Your task to perform on an android device: change the clock display to digital Image 0: 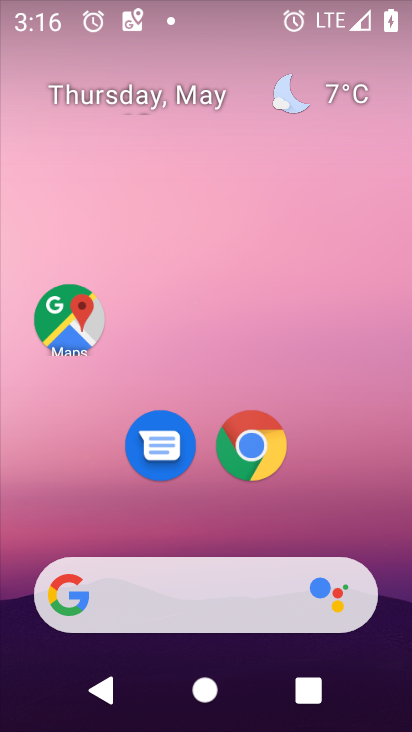
Step 0: drag from (361, 529) to (358, 2)
Your task to perform on an android device: change the clock display to digital Image 1: 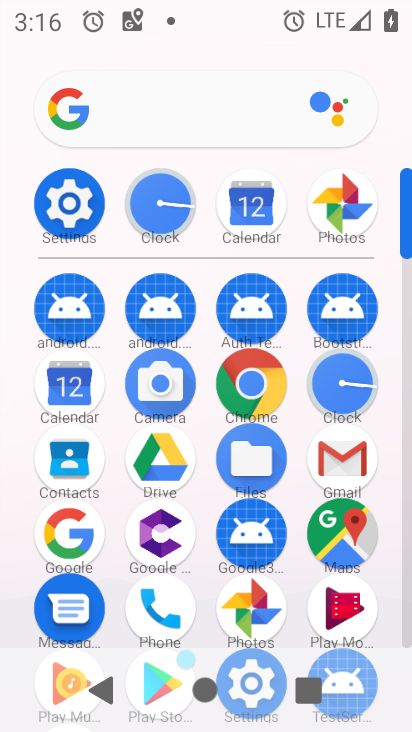
Step 1: click (154, 207)
Your task to perform on an android device: change the clock display to digital Image 2: 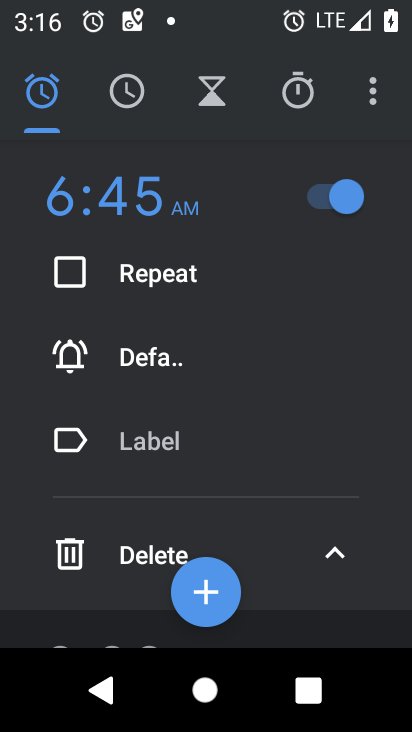
Step 2: click (377, 94)
Your task to perform on an android device: change the clock display to digital Image 3: 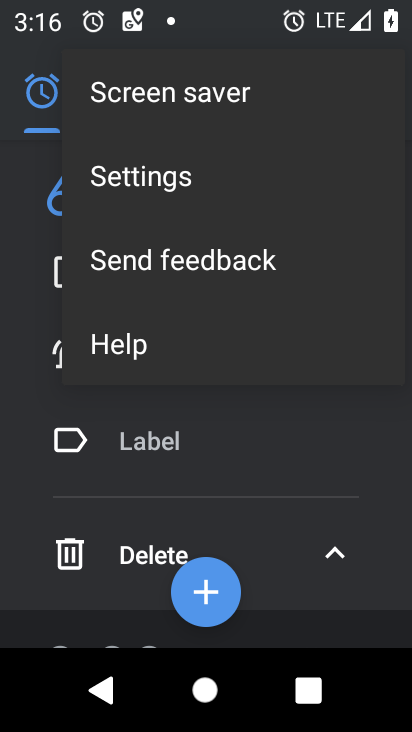
Step 3: click (149, 184)
Your task to perform on an android device: change the clock display to digital Image 4: 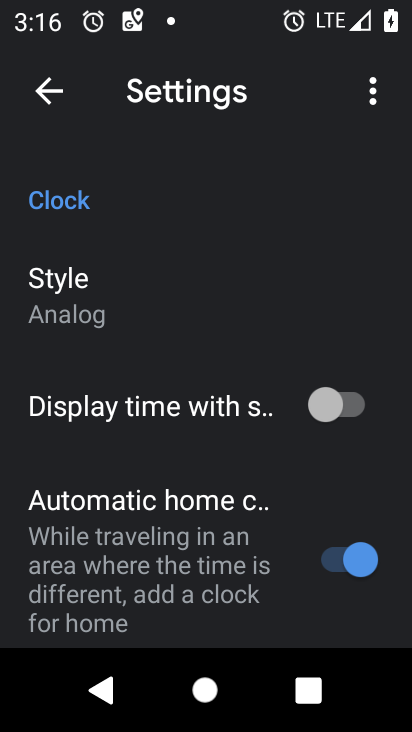
Step 4: click (63, 294)
Your task to perform on an android device: change the clock display to digital Image 5: 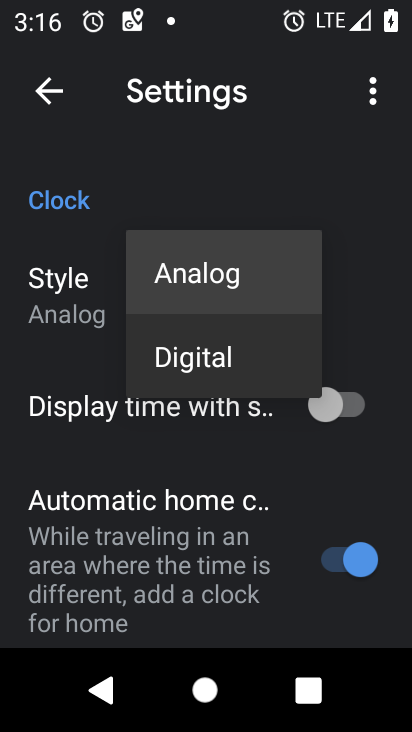
Step 5: click (162, 359)
Your task to perform on an android device: change the clock display to digital Image 6: 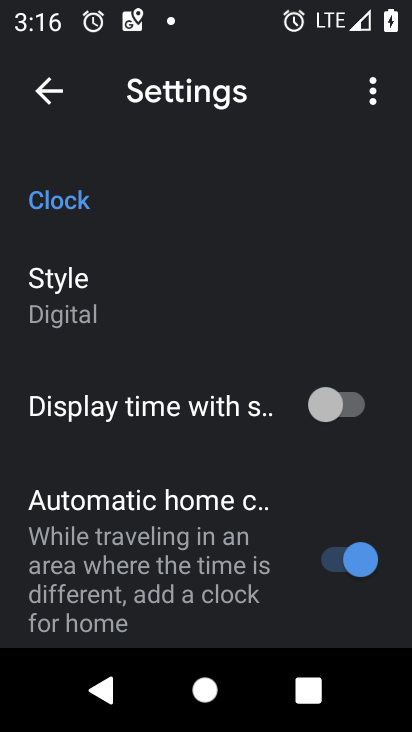
Step 6: task complete